Your task to perform on an android device: Open Wikipedia Image 0: 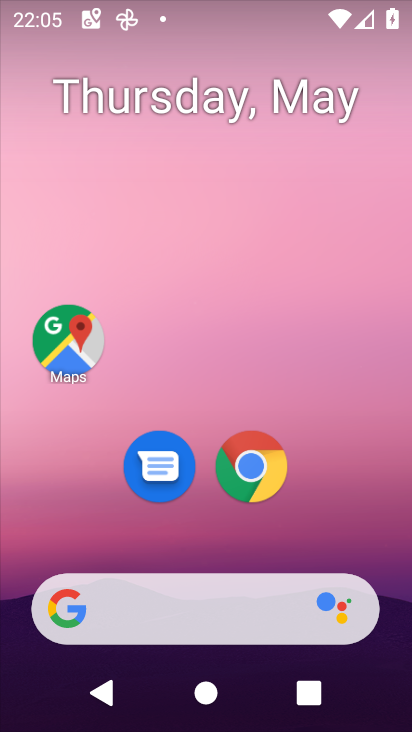
Step 0: click (236, 610)
Your task to perform on an android device: Open Wikipedia Image 1: 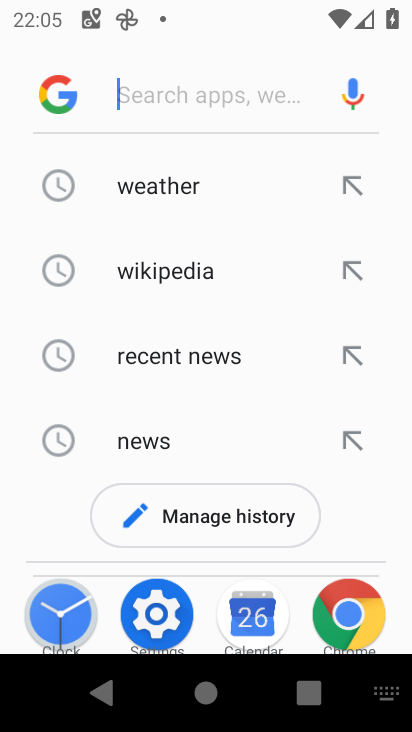
Step 1: click (228, 278)
Your task to perform on an android device: Open Wikipedia Image 2: 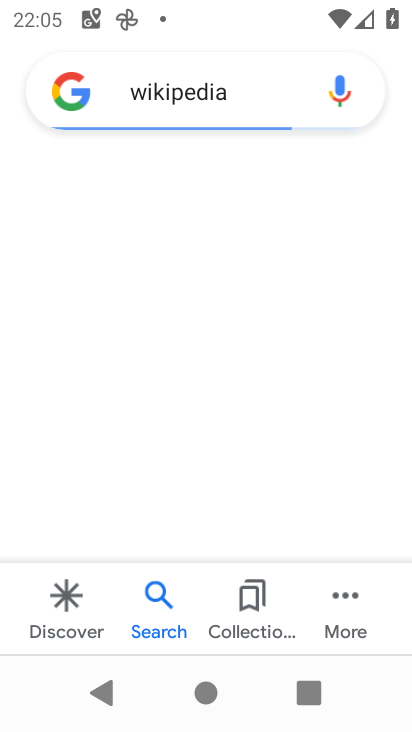
Step 2: task complete